Your task to perform on an android device: Show me popular videos on Youtube Image 0: 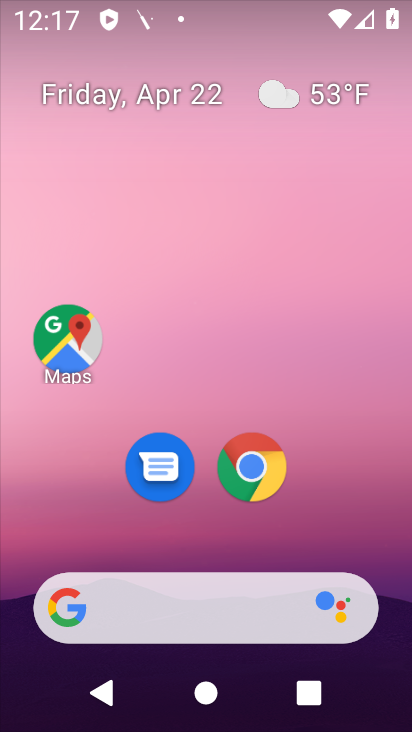
Step 0: drag from (399, 602) to (348, 258)
Your task to perform on an android device: Show me popular videos on Youtube Image 1: 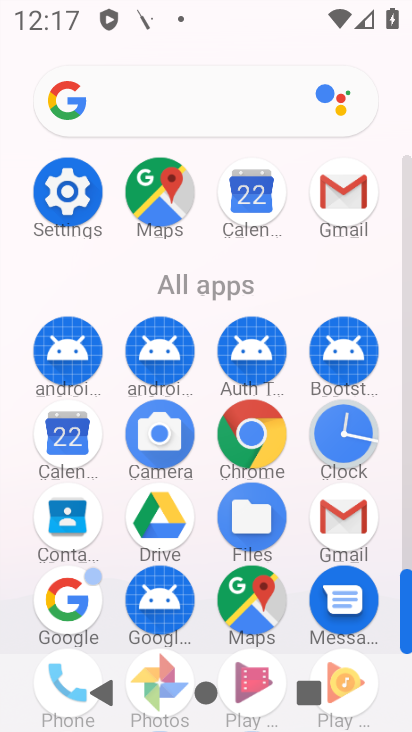
Step 1: drag from (407, 557) to (408, 498)
Your task to perform on an android device: Show me popular videos on Youtube Image 2: 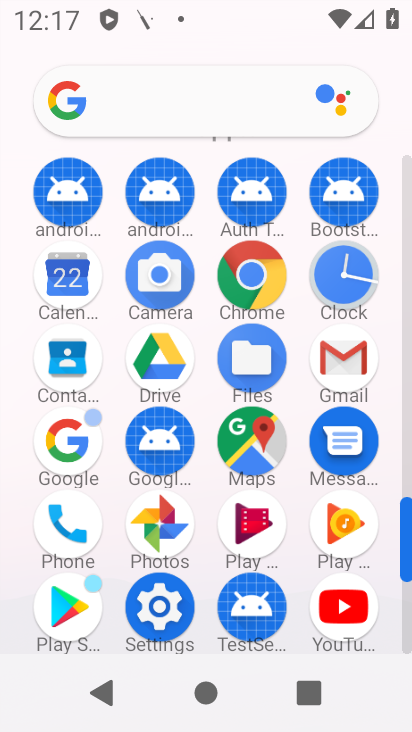
Step 2: click (341, 600)
Your task to perform on an android device: Show me popular videos on Youtube Image 3: 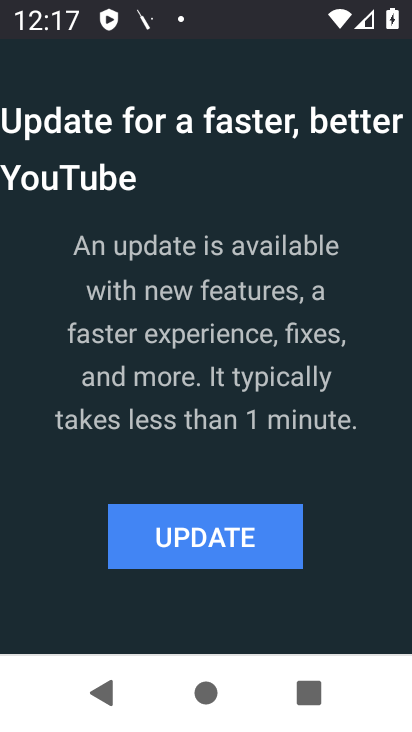
Step 3: click (198, 530)
Your task to perform on an android device: Show me popular videos on Youtube Image 4: 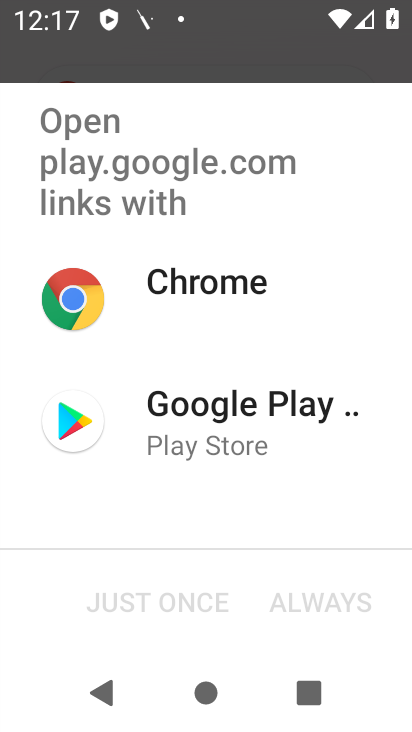
Step 4: click (183, 417)
Your task to perform on an android device: Show me popular videos on Youtube Image 5: 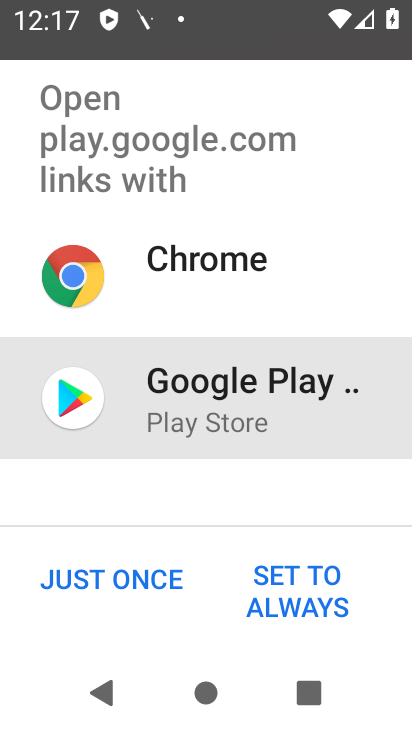
Step 5: click (98, 581)
Your task to perform on an android device: Show me popular videos on Youtube Image 6: 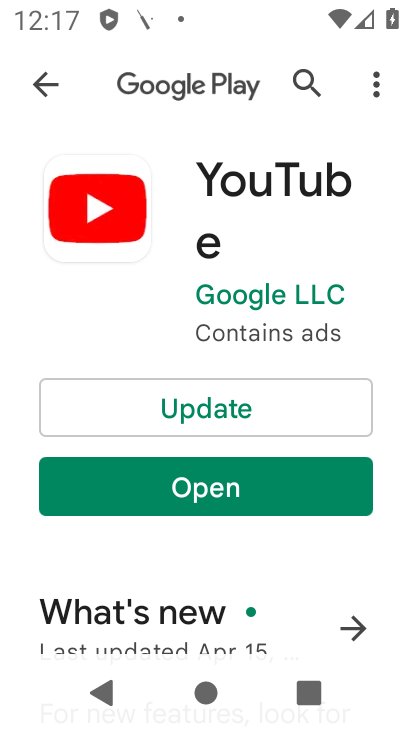
Step 6: click (201, 406)
Your task to perform on an android device: Show me popular videos on Youtube Image 7: 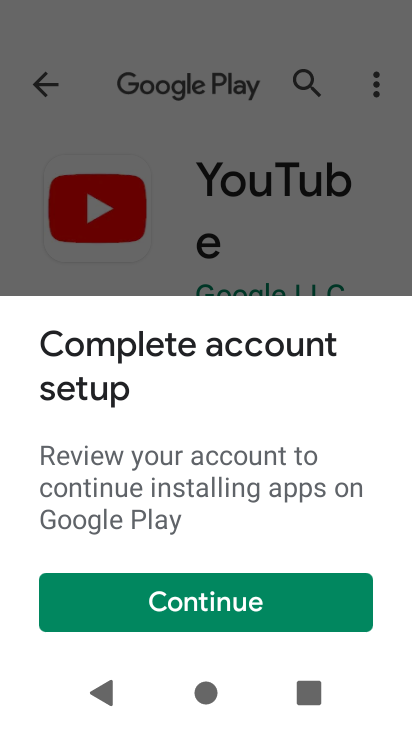
Step 7: task complete